Your task to perform on an android device: Search for the best rated running shoes on Nike.com Image 0: 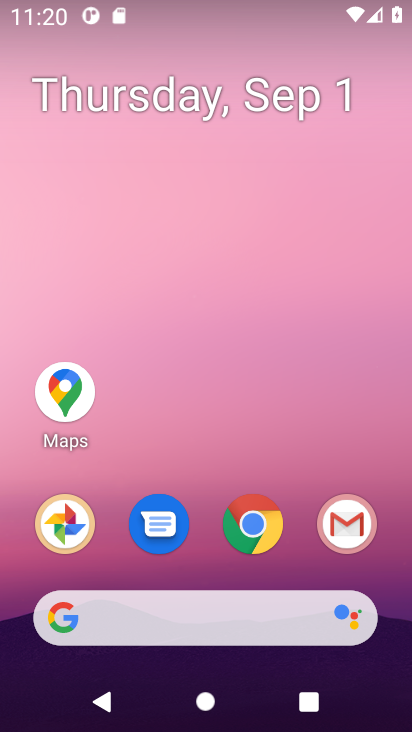
Step 0: click (257, 612)
Your task to perform on an android device: Search for the best rated running shoes on Nike.com Image 1: 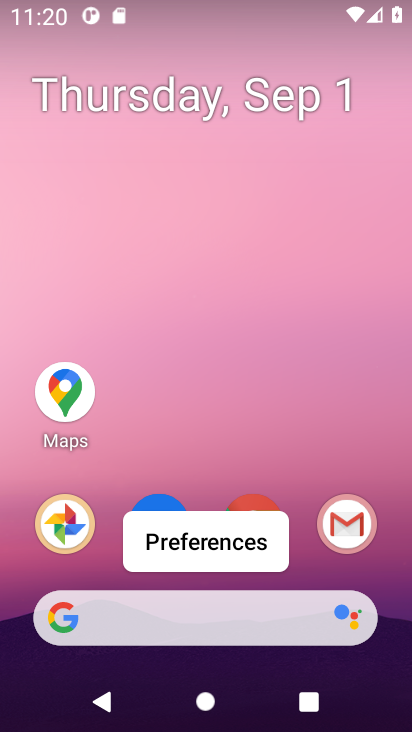
Step 1: click (254, 617)
Your task to perform on an android device: Search for the best rated running shoes on Nike.com Image 2: 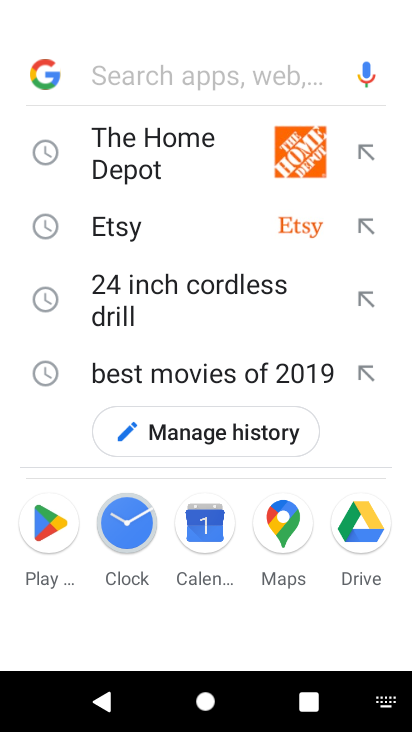
Step 2: press enter
Your task to perform on an android device: Search for the best rated running shoes on Nike.com Image 3: 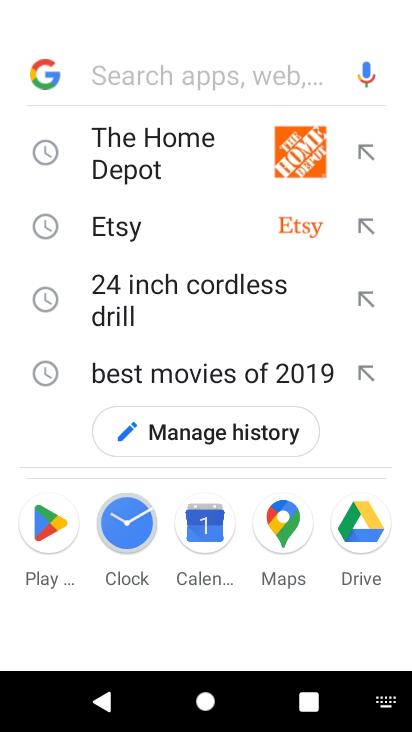
Step 3: type "nike.com"
Your task to perform on an android device: Search for the best rated running shoes on Nike.com Image 4: 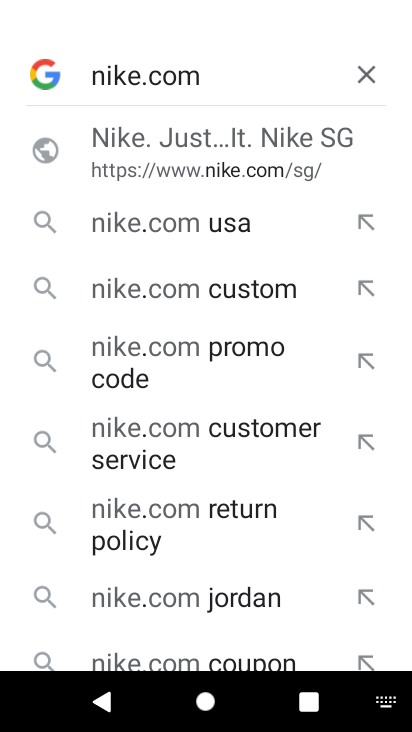
Step 4: click (232, 158)
Your task to perform on an android device: Search for the best rated running shoes on Nike.com Image 5: 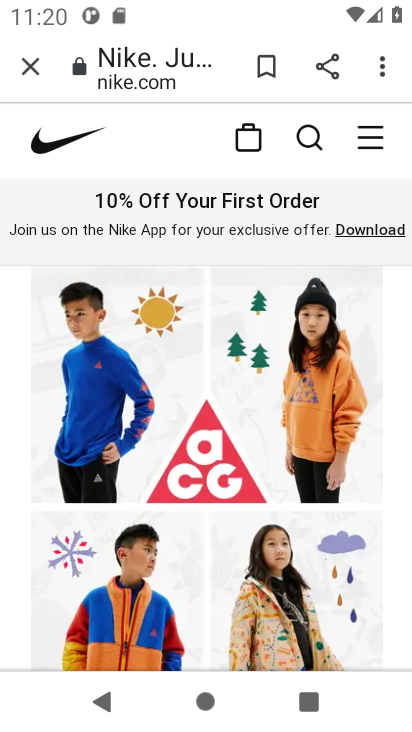
Step 5: click (308, 128)
Your task to perform on an android device: Search for the best rated running shoes on Nike.com Image 6: 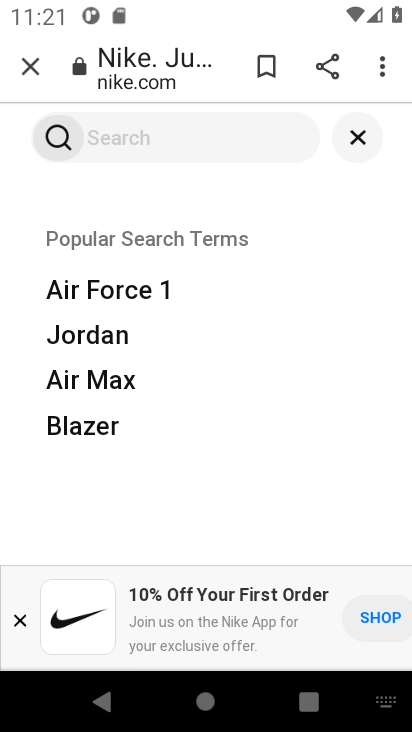
Step 6: press enter
Your task to perform on an android device: Search for the best rated running shoes on Nike.com Image 7: 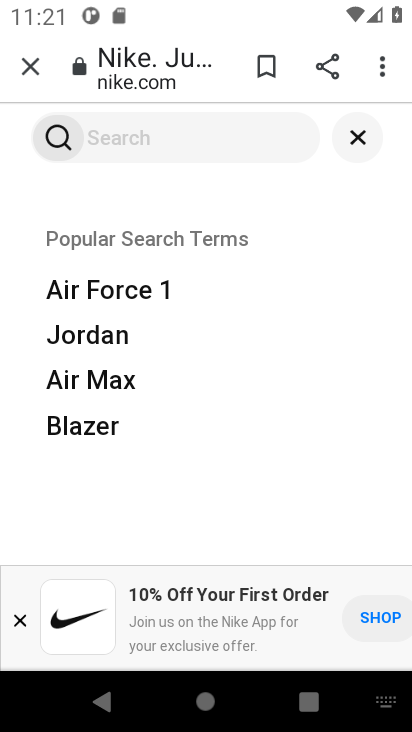
Step 7: type "best rated running shoes"
Your task to perform on an android device: Search for the best rated running shoes on Nike.com Image 8: 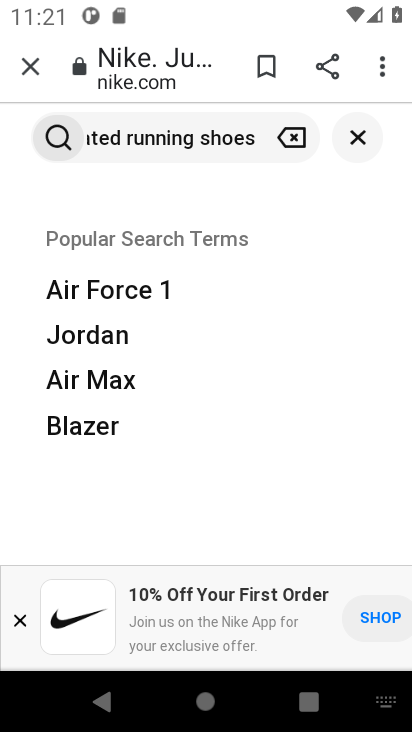
Step 8: click (54, 128)
Your task to perform on an android device: Search for the best rated running shoes on Nike.com Image 9: 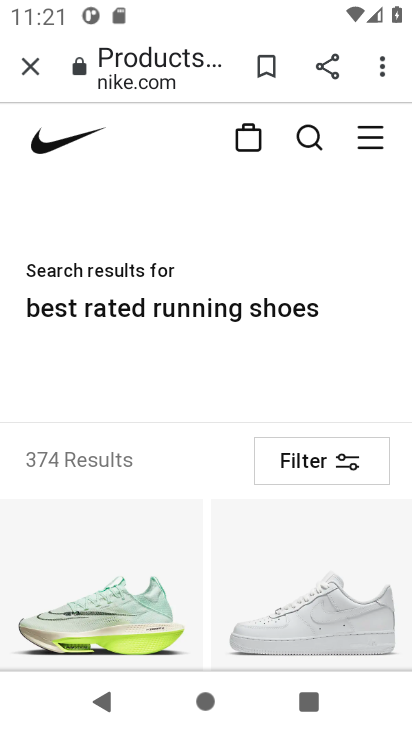
Step 9: task complete